Your task to perform on an android device: change the clock display to digital Image 0: 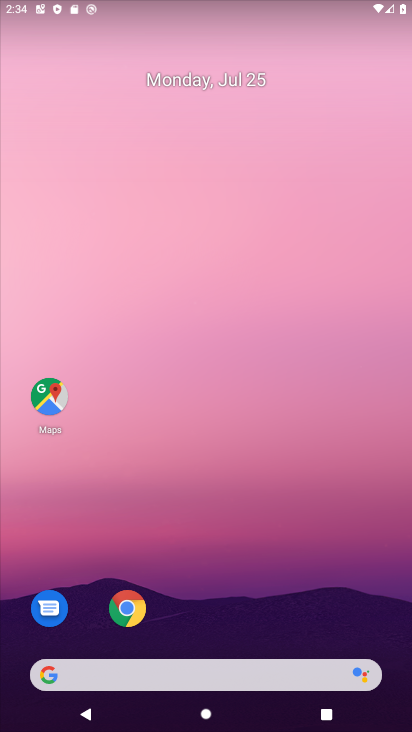
Step 0: drag from (299, 609) to (289, 0)
Your task to perform on an android device: change the clock display to digital Image 1: 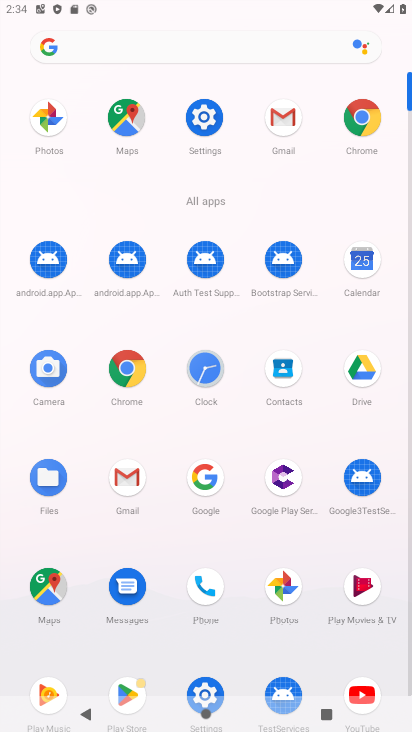
Step 1: click (204, 110)
Your task to perform on an android device: change the clock display to digital Image 2: 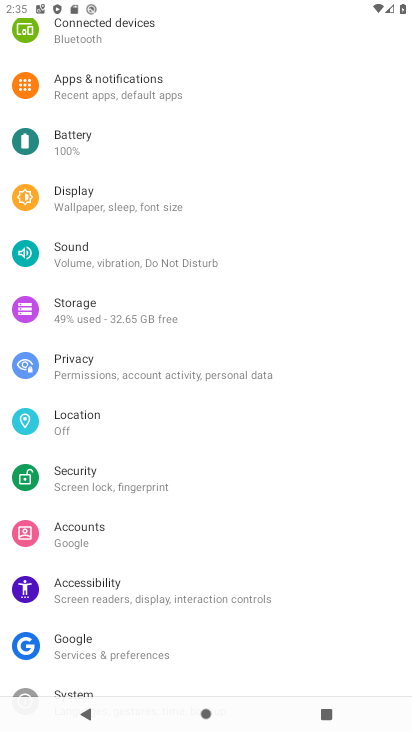
Step 2: press home button
Your task to perform on an android device: change the clock display to digital Image 3: 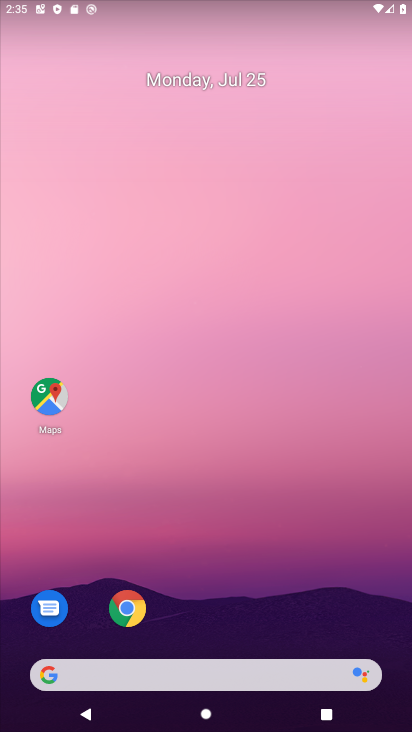
Step 3: drag from (254, 612) to (212, 1)
Your task to perform on an android device: change the clock display to digital Image 4: 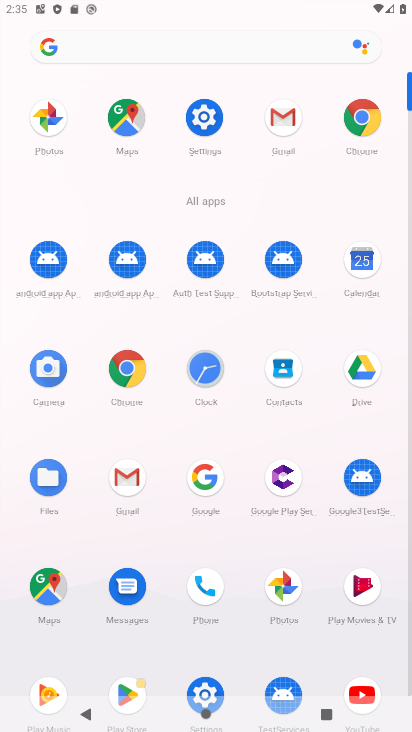
Step 4: click (208, 361)
Your task to perform on an android device: change the clock display to digital Image 5: 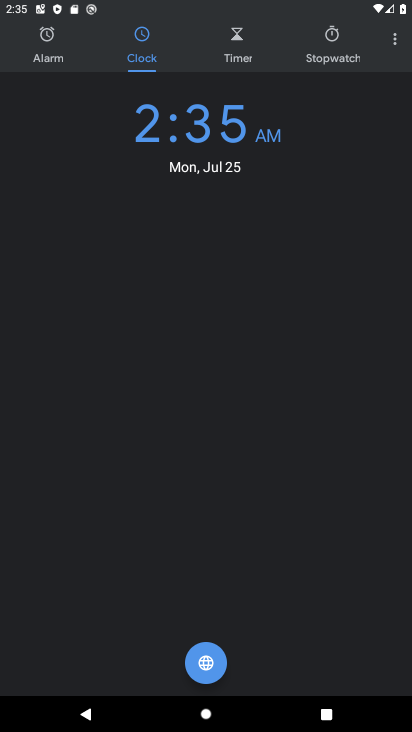
Step 5: click (397, 47)
Your task to perform on an android device: change the clock display to digital Image 6: 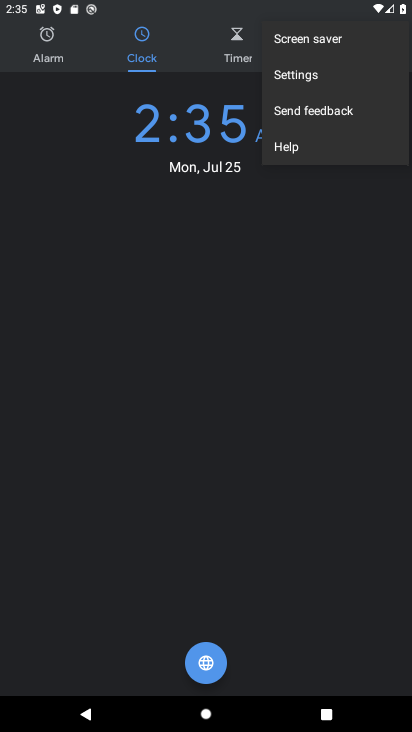
Step 6: click (326, 79)
Your task to perform on an android device: change the clock display to digital Image 7: 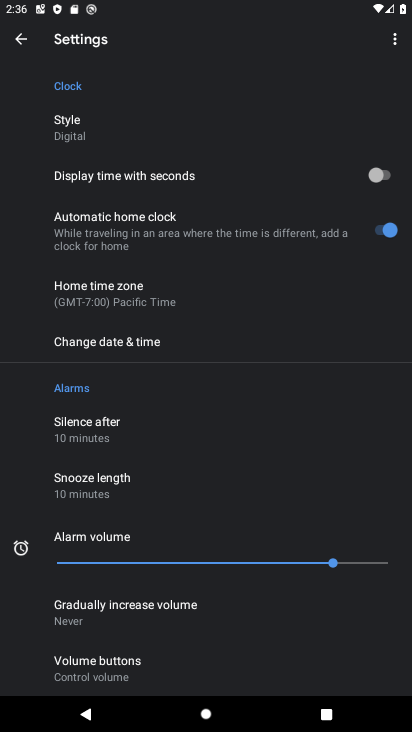
Step 7: click (241, 108)
Your task to perform on an android device: change the clock display to digital Image 8: 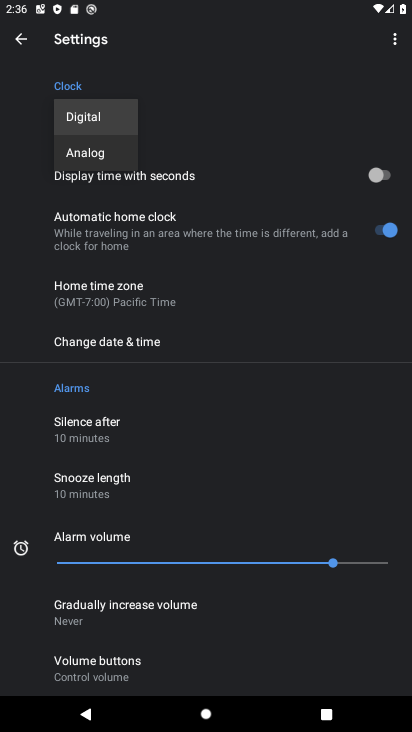
Step 8: task complete